Your task to perform on an android device: turn off airplane mode Image 0: 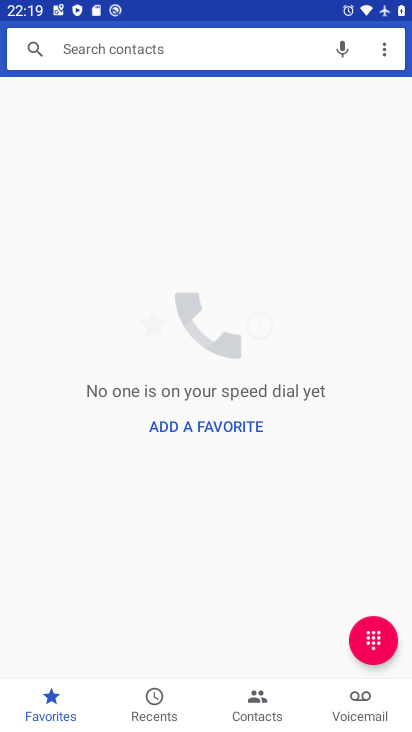
Step 0: press home button
Your task to perform on an android device: turn off airplane mode Image 1: 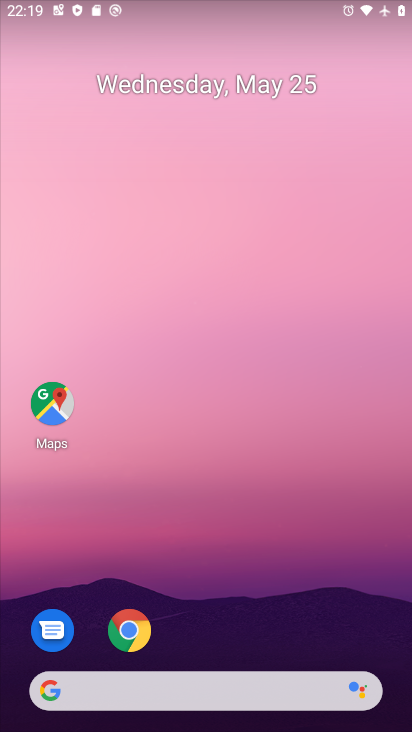
Step 1: drag from (249, 646) to (248, 251)
Your task to perform on an android device: turn off airplane mode Image 2: 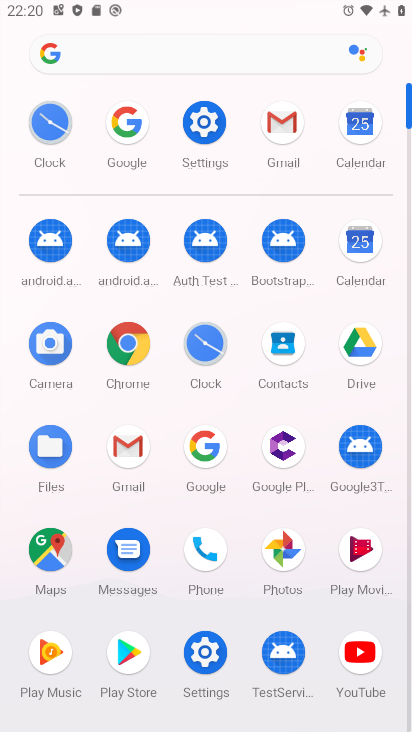
Step 2: click (224, 129)
Your task to perform on an android device: turn off airplane mode Image 3: 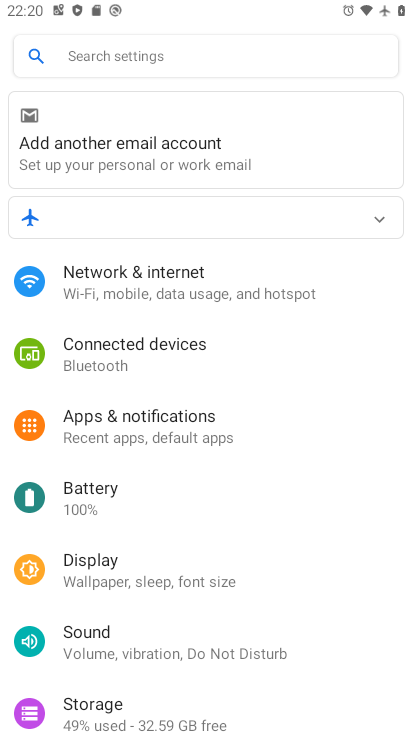
Step 3: click (180, 269)
Your task to perform on an android device: turn off airplane mode Image 4: 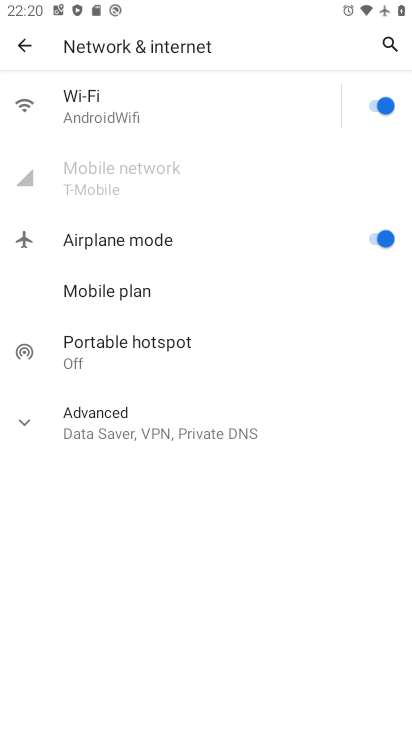
Step 4: click (371, 240)
Your task to perform on an android device: turn off airplane mode Image 5: 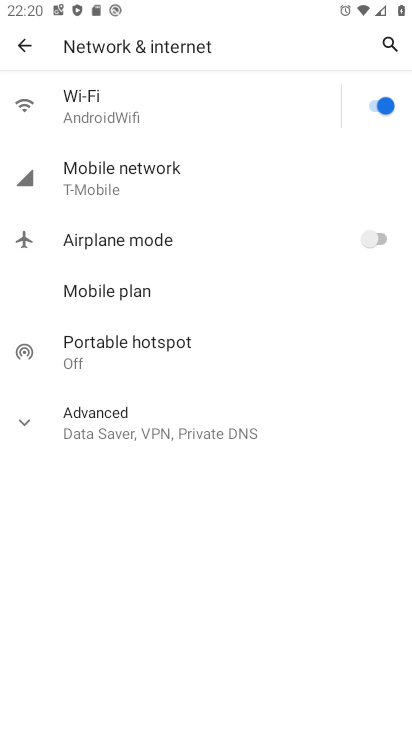
Step 5: task complete